Your task to perform on an android device: turn on priority inbox in the gmail app Image 0: 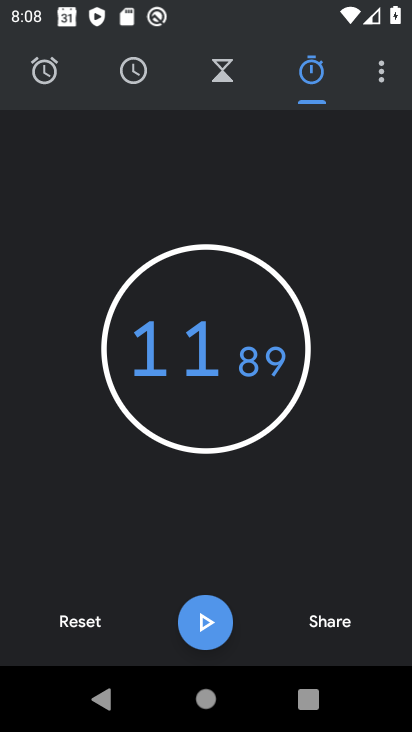
Step 0: press home button
Your task to perform on an android device: turn on priority inbox in the gmail app Image 1: 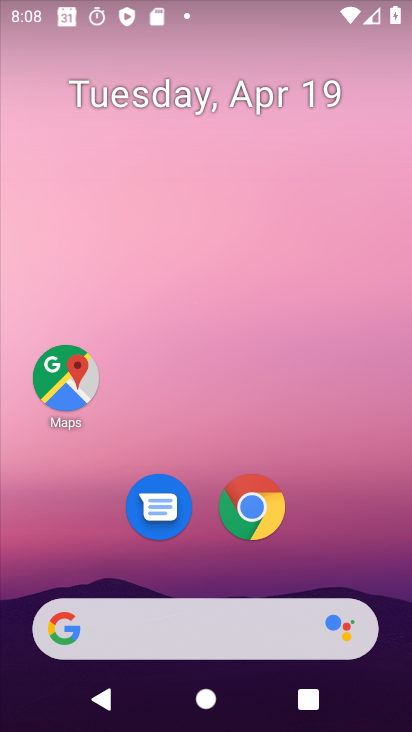
Step 1: drag from (347, 559) to (242, 78)
Your task to perform on an android device: turn on priority inbox in the gmail app Image 2: 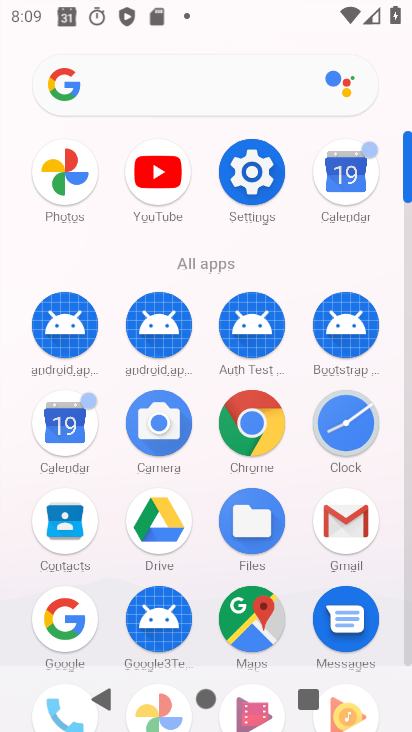
Step 2: click (344, 527)
Your task to perform on an android device: turn on priority inbox in the gmail app Image 3: 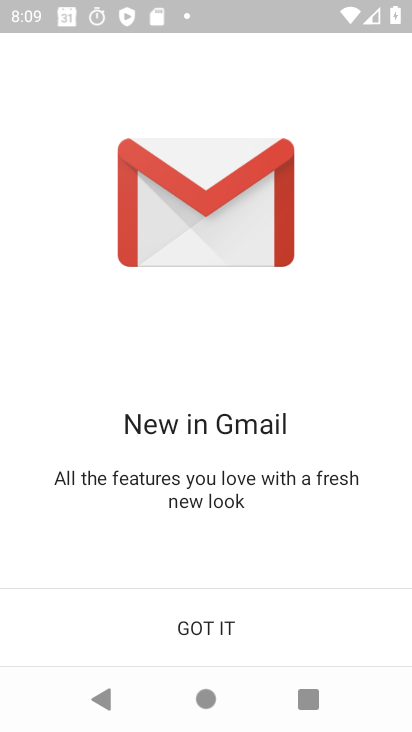
Step 3: click (208, 618)
Your task to perform on an android device: turn on priority inbox in the gmail app Image 4: 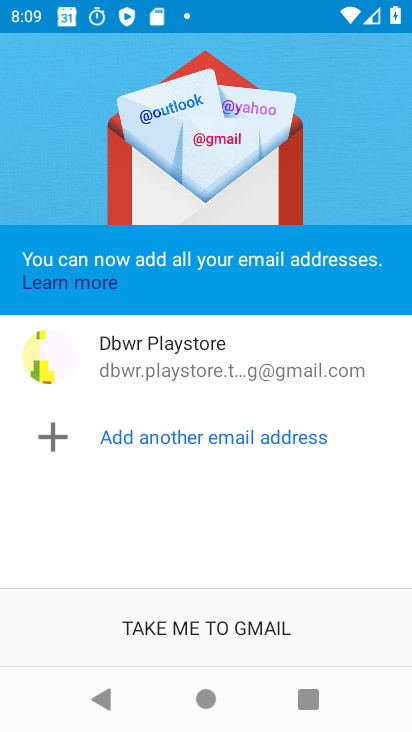
Step 4: click (210, 619)
Your task to perform on an android device: turn on priority inbox in the gmail app Image 5: 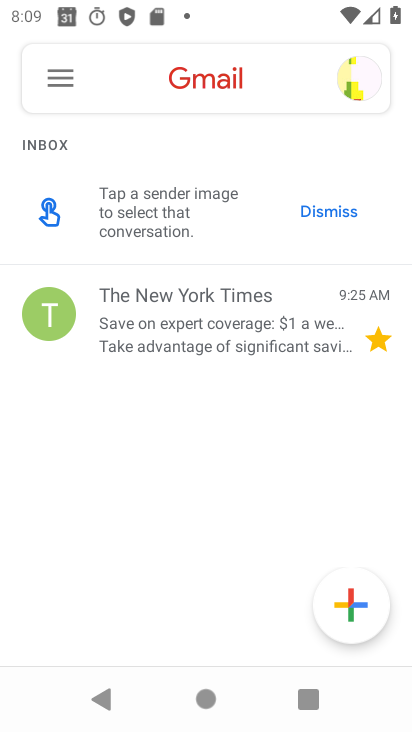
Step 5: click (51, 80)
Your task to perform on an android device: turn on priority inbox in the gmail app Image 6: 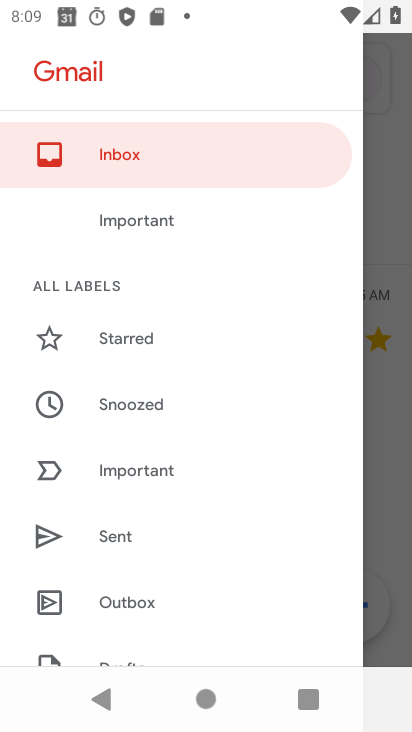
Step 6: drag from (106, 614) to (106, 211)
Your task to perform on an android device: turn on priority inbox in the gmail app Image 7: 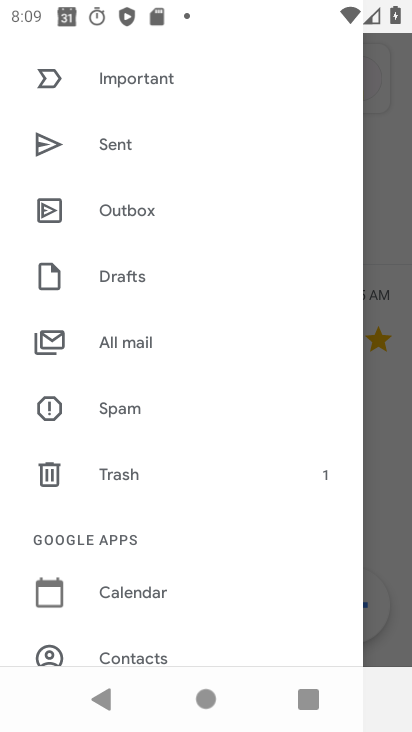
Step 7: drag from (142, 611) to (165, 242)
Your task to perform on an android device: turn on priority inbox in the gmail app Image 8: 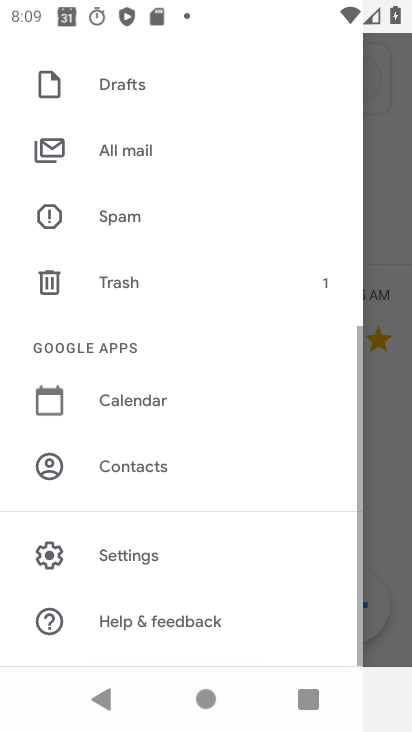
Step 8: click (128, 553)
Your task to perform on an android device: turn on priority inbox in the gmail app Image 9: 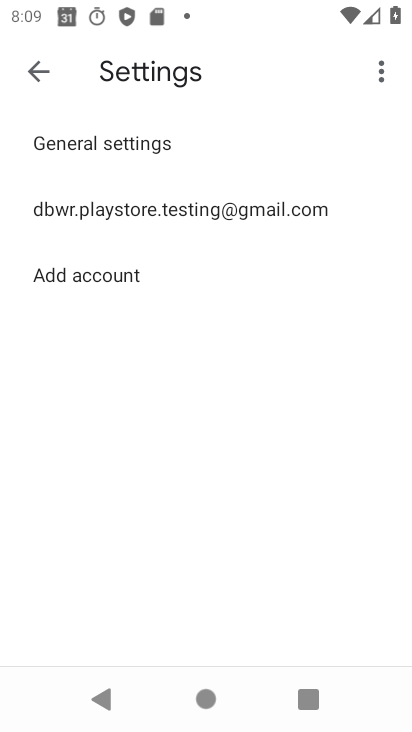
Step 9: click (187, 215)
Your task to perform on an android device: turn on priority inbox in the gmail app Image 10: 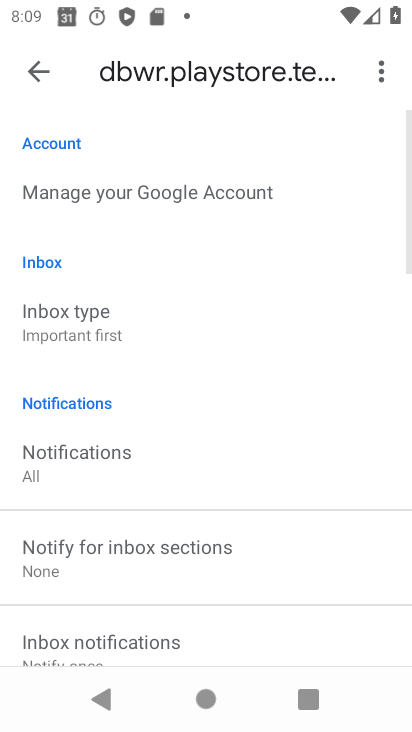
Step 10: click (92, 320)
Your task to perform on an android device: turn on priority inbox in the gmail app Image 11: 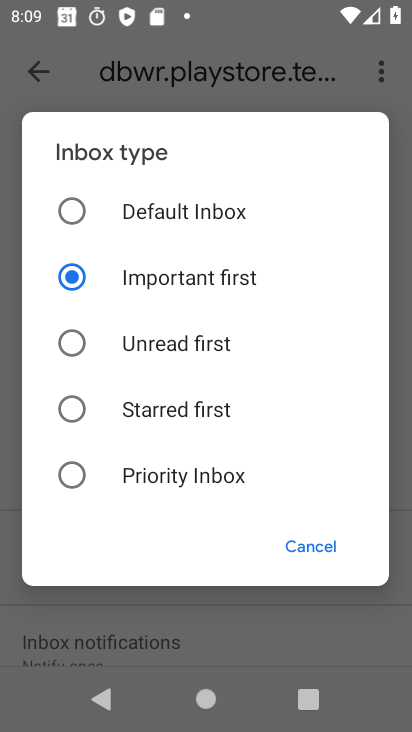
Step 11: click (67, 471)
Your task to perform on an android device: turn on priority inbox in the gmail app Image 12: 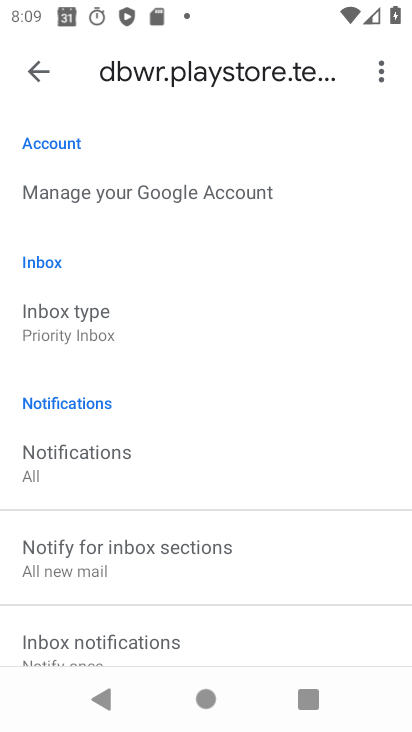
Step 12: task complete